Your task to perform on an android device: Go to wifi settings Image 0: 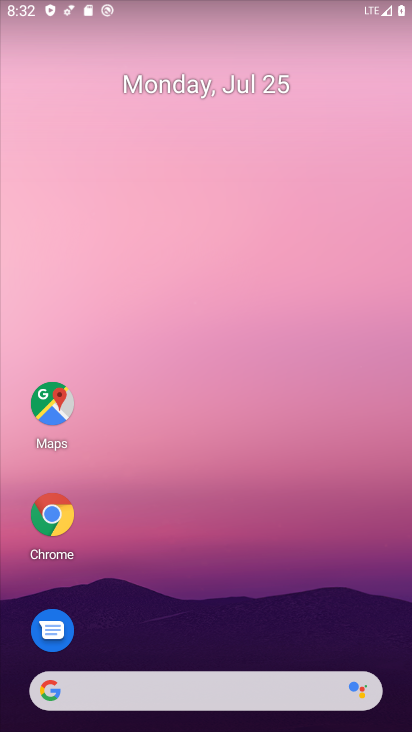
Step 0: drag from (5, 692) to (142, 233)
Your task to perform on an android device: Go to wifi settings Image 1: 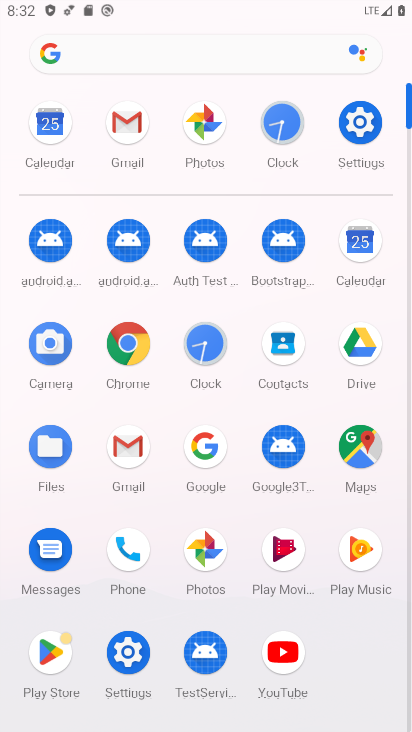
Step 1: click (127, 655)
Your task to perform on an android device: Go to wifi settings Image 2: 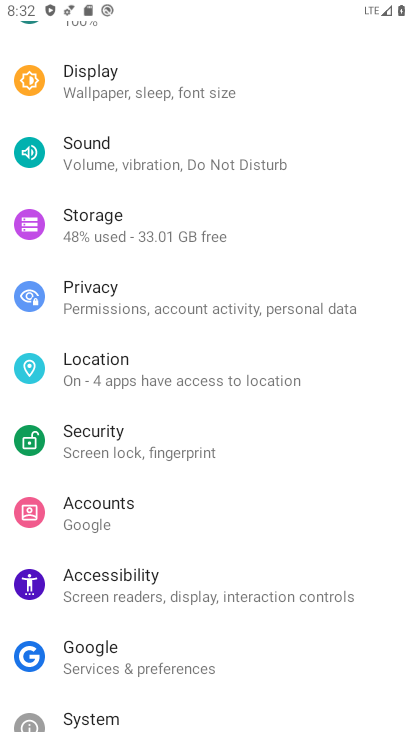
Step 2: drag from (247, 59) to (250, 397)
Your task to perform on an android device: Go to wifi settings Image 3: 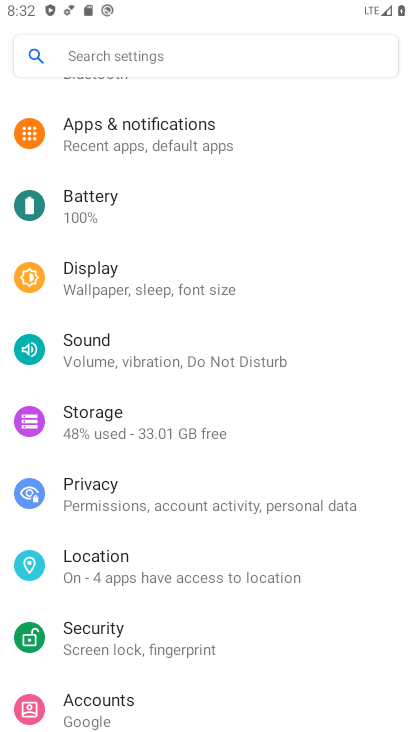
Step 3: click (136, 131)
Your task to perform on an android device: Go to wifi settings Image 4: 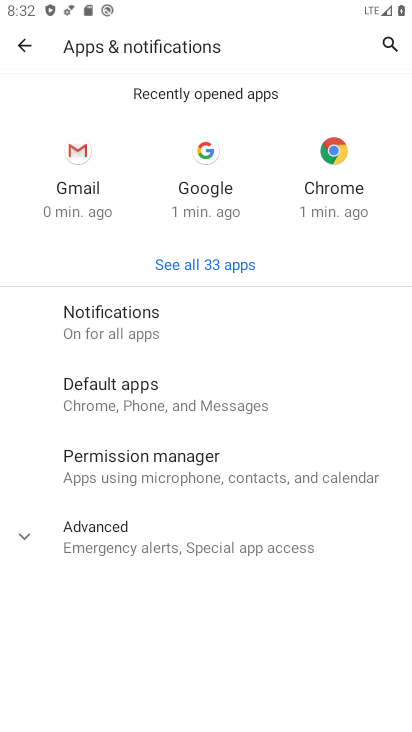
Step 4: click (21, 39)
Your task to perform on an android device: Go to wifi settings Image 5: 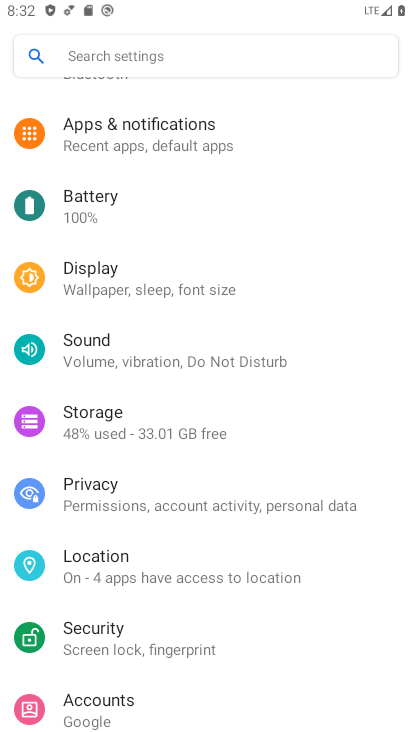
Step 5: drag from (251, 122) to (255, 463)
Your task to perform on an android device: Go to wifi settings Image 6: 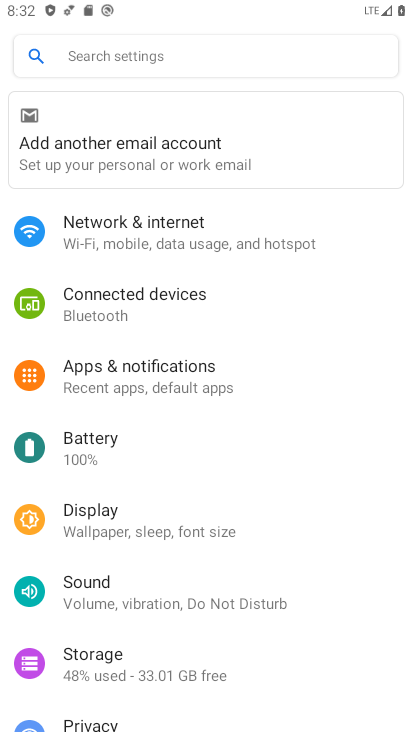
Step 6: click (139, 217)
Your task to perform on an android device: Go to wifi settings Image 7: 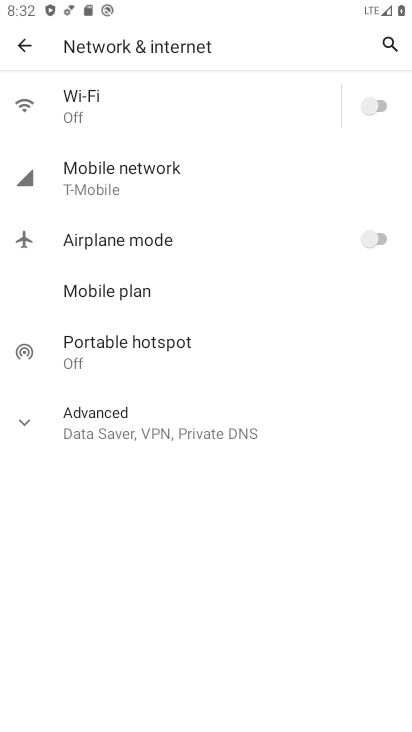
Step 7: task complete